Your task to perform on an android device: check data usage Image 0: 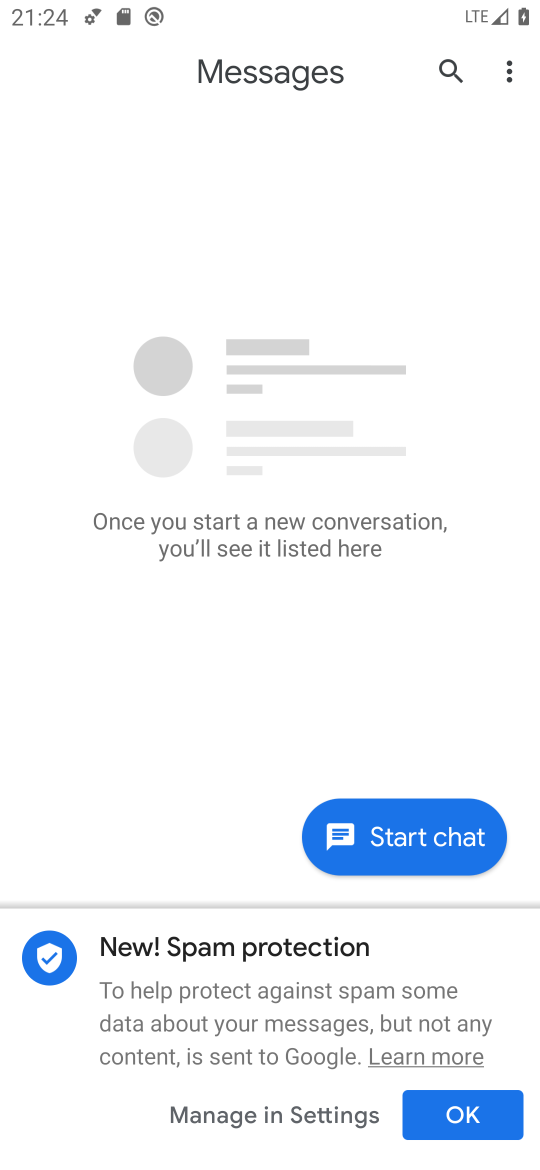
Step 0: press home button
Your task to perform on an android device: check data usage Image 1: 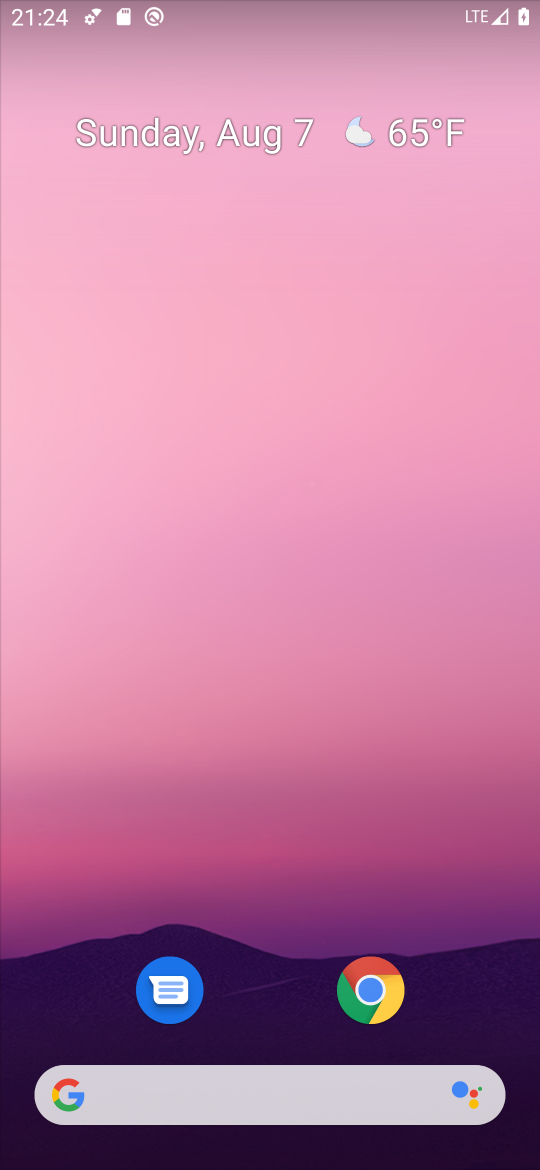
Step 1: drag from (288, 945) to (341, 0)
Your task to perform on an android device: check data usage Image 2: 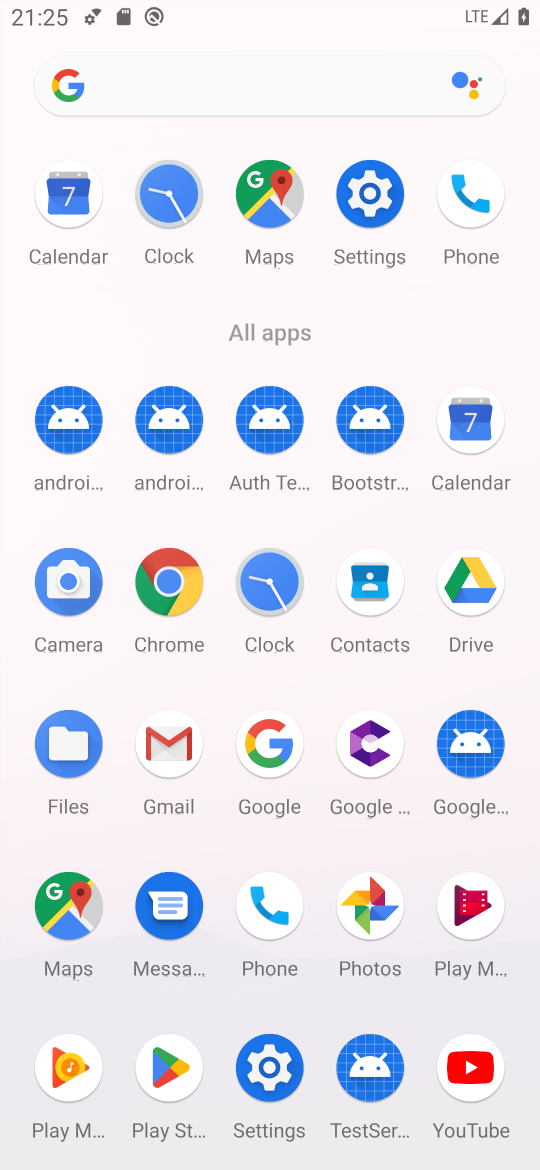
Step 2: click (366, 195)
Your task to perform on an android device: check data usage Image 3: 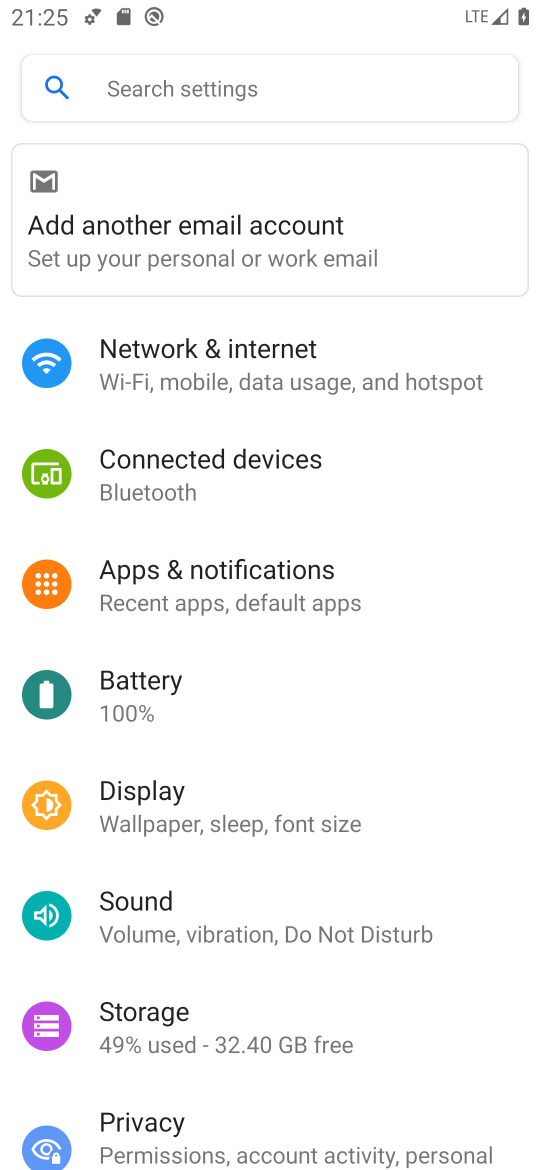
Step 3: click (291, 365)
Your task to perform on an android device: check data usage Image 4: 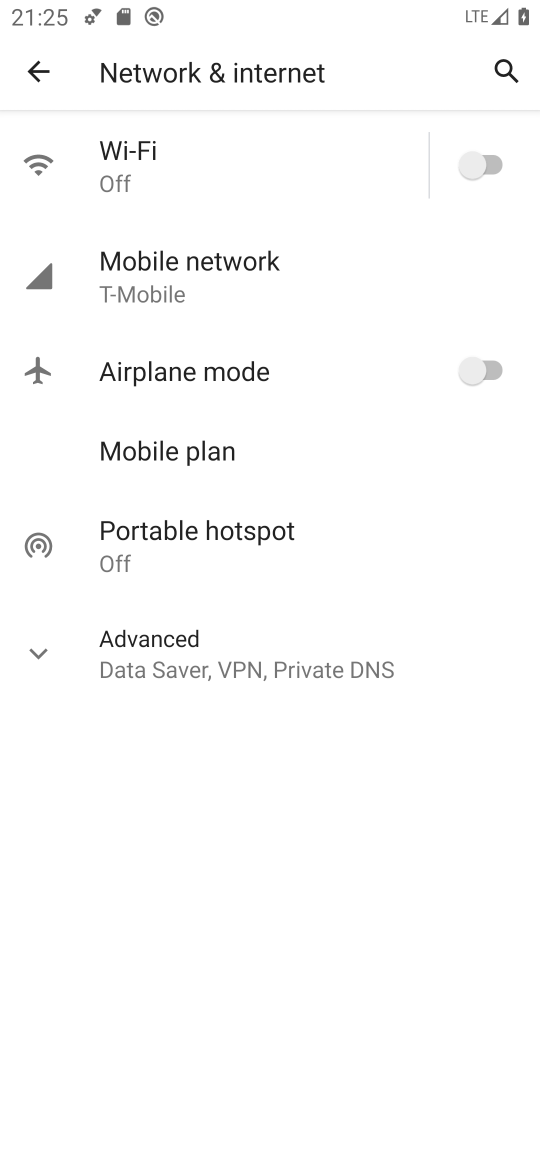
Step 4: click (232, 258)
Your task to perform on an android device: check data usage Image 5: 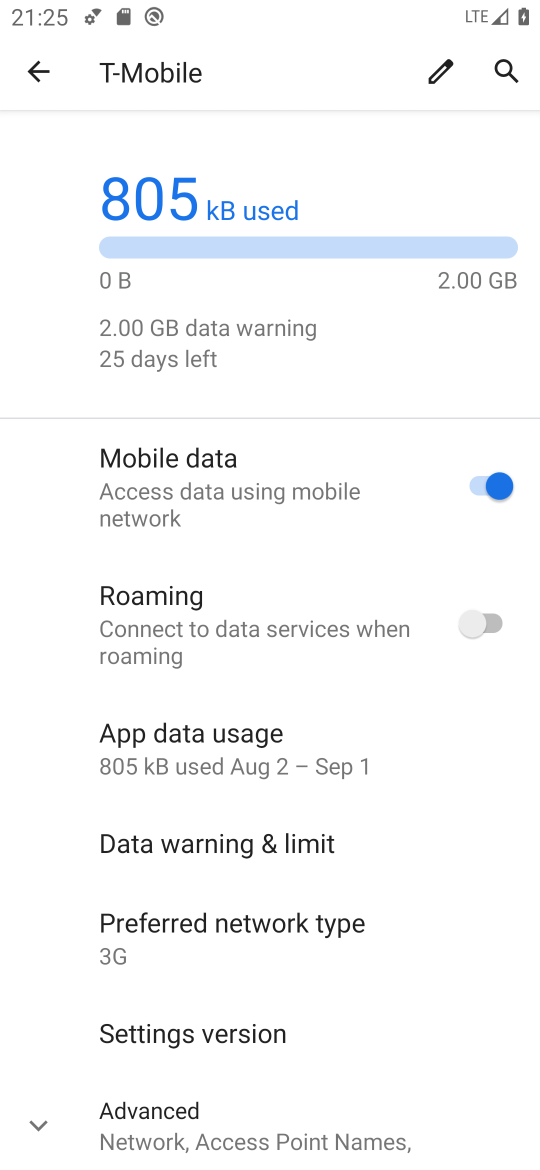
Step 5: task complete